Your task to perform on an android device: Go to wifi settings Image 0: 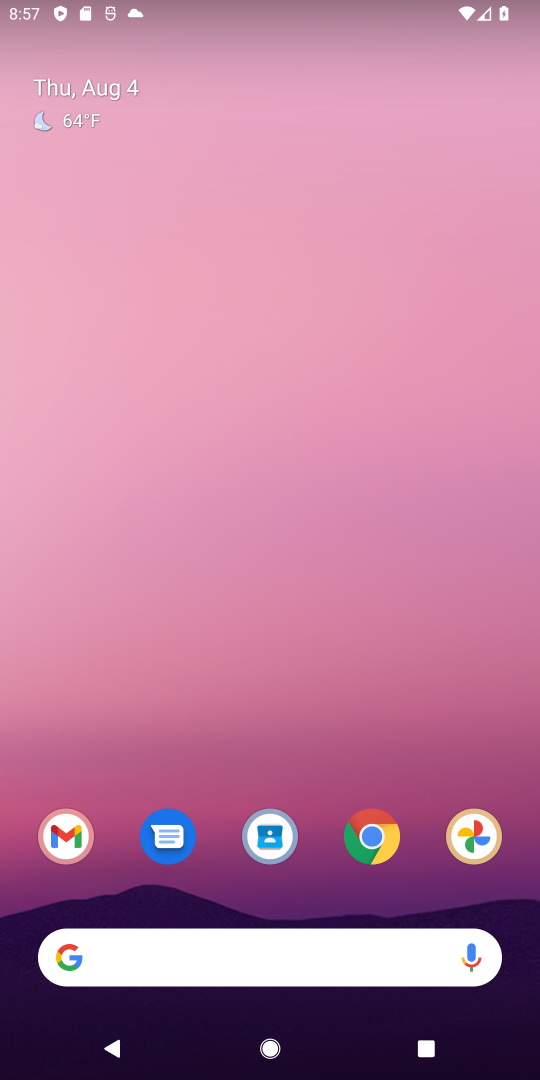
Step 0: drag from (151, 116) to (214, 828)
Your task to perform on an android device: Go to wifi settings Image 1: 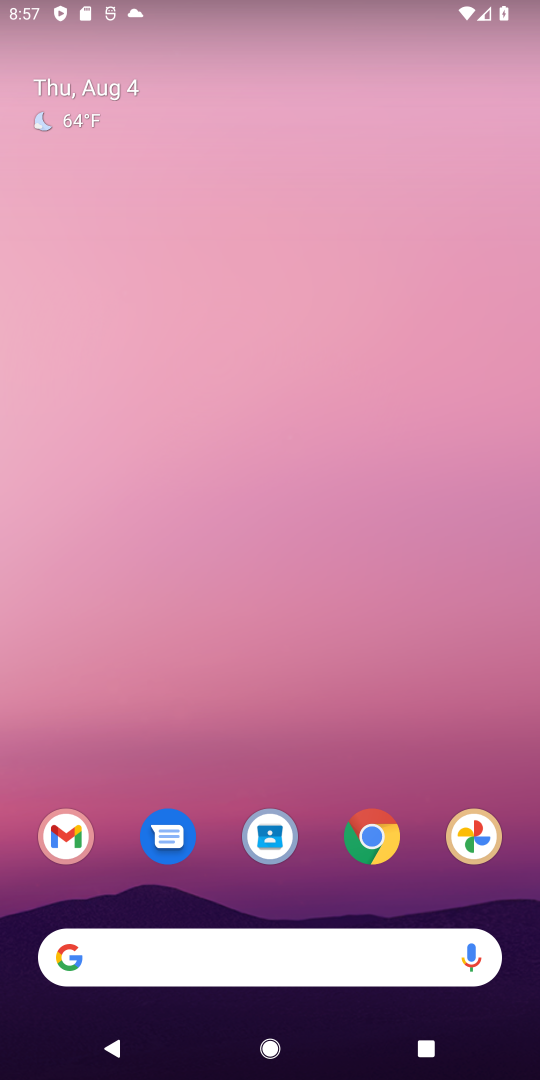
Step 1: drag from (132, 3) to (206, 735)
Your task to perform on an android device: Go to wifi settings Image 2: 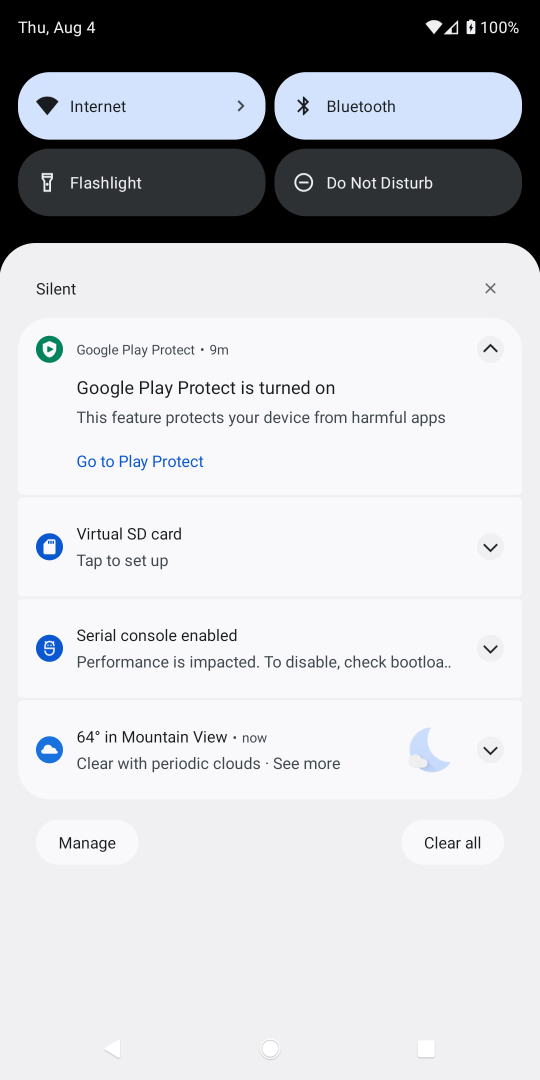
Step 2: click (91, 90)
Your task to perform on an android device: Go to wifi settings Image 3: 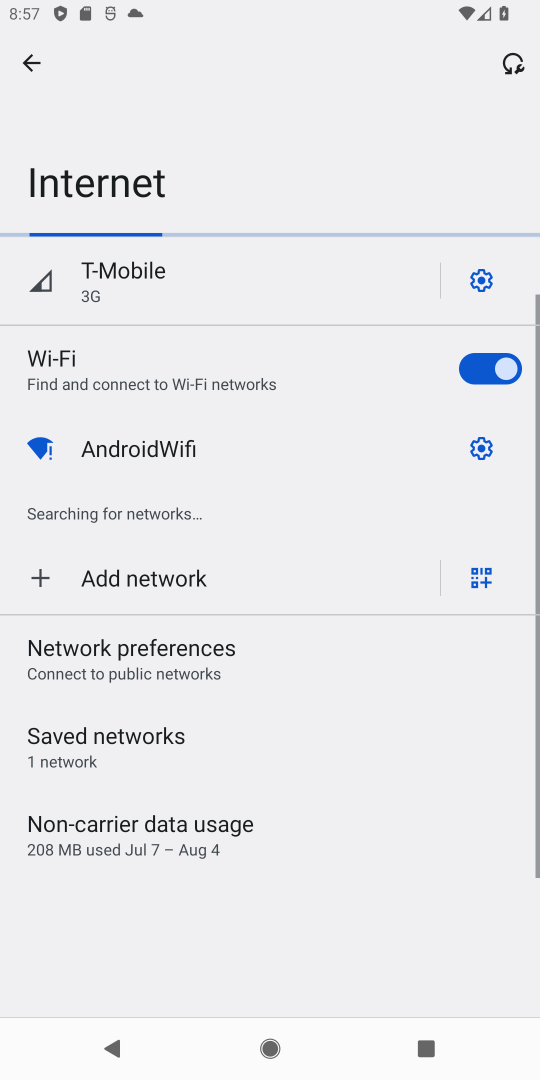
Step 3: task complete